Your task to perform on an android device: What is the recent news? Image 0: 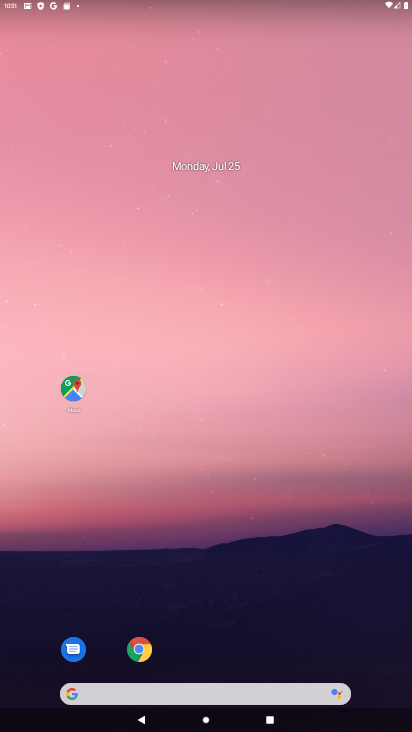
Step 0: drag from (286, 673) to (339, 134)
Your task to perform on an android device: What is the recent news? Image 1: 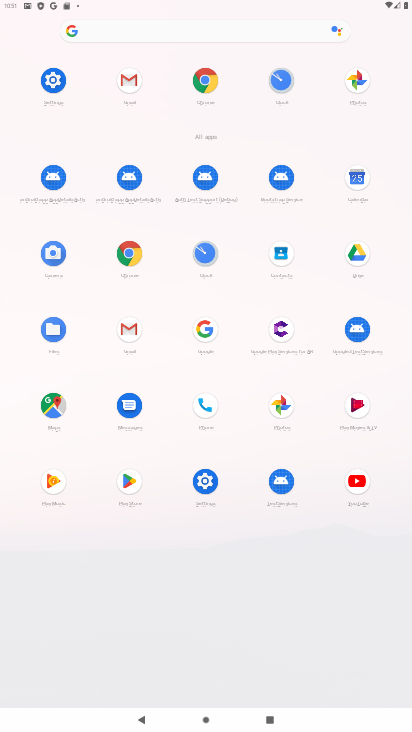
Step 1: click (134, 249)
Your task to perform on an android device: What is the recent news? Image 2: 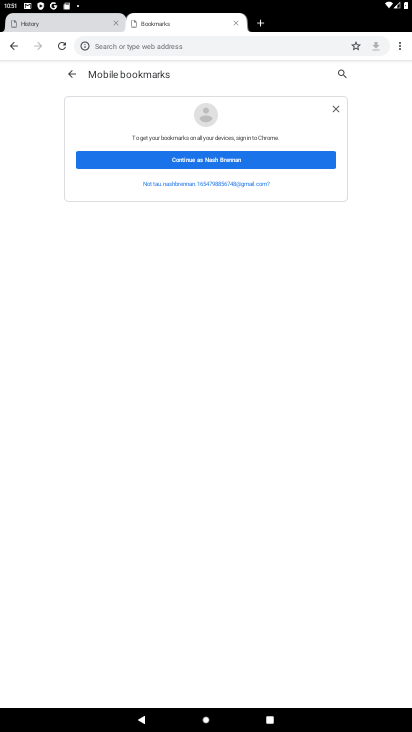
Step 2: click (243, 46)
Your task to perform on an android device: What is the recent news? Image 3: 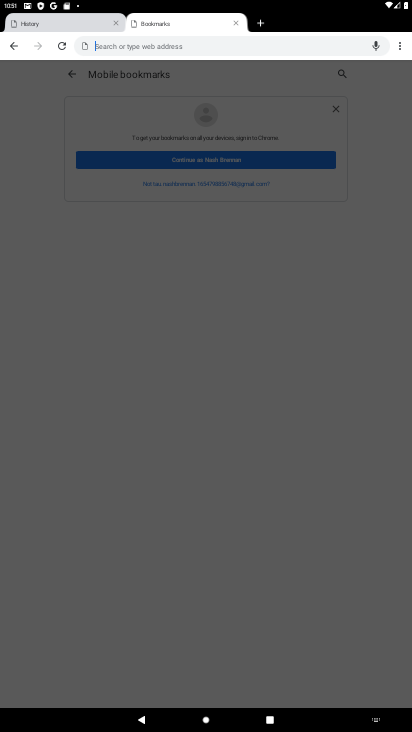
Step 3: type "recent news"
Your task to perform on an android device: What is the recent news? Image 4: 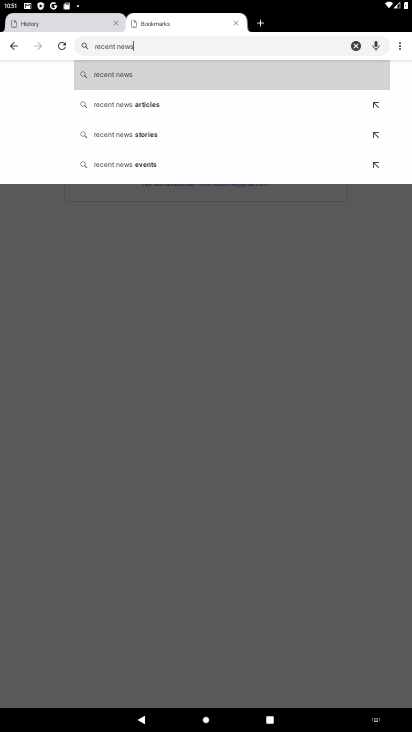
Step 4: click (259, 70)
Your task to perform on an android device: What is the recent news? Image 5: 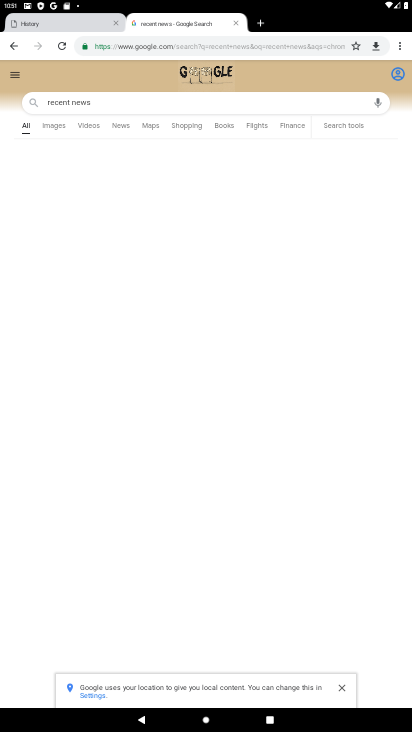
Step 5: task complete